Your task to perform on an android device: What is the recent news? Image 0: 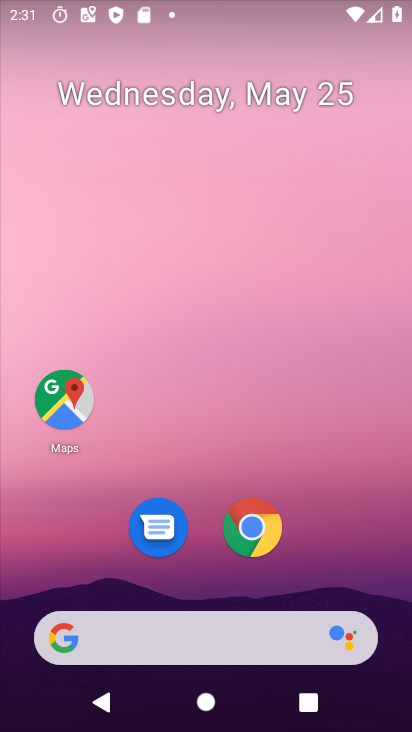
Step 0: drag from (182, 598) to (272, 10)
Your task to perform on an android device: What is the recent news? Image 1: 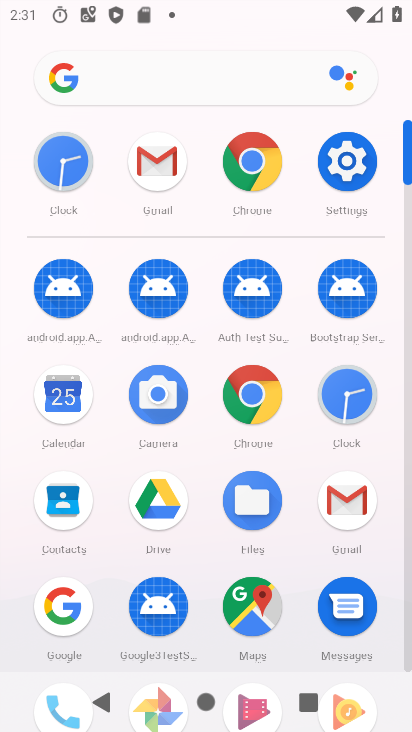
Step 1: click (142, 88)
Your task to perform on an android device: What is the recent news? Image 2: 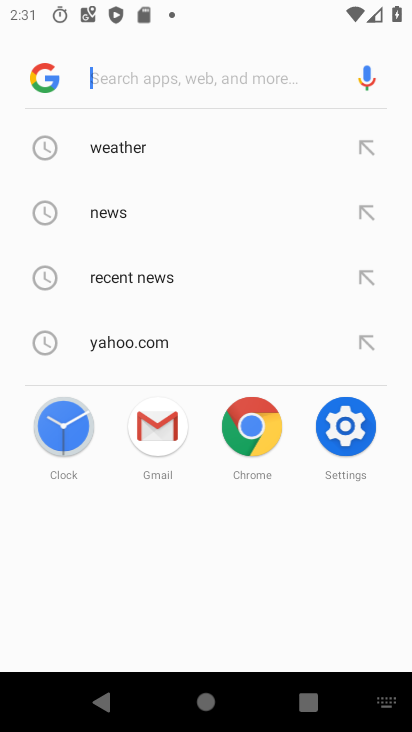
Step 2: click (122, 273)
Your task to perform on an android device: What is the recent news? Image 3: 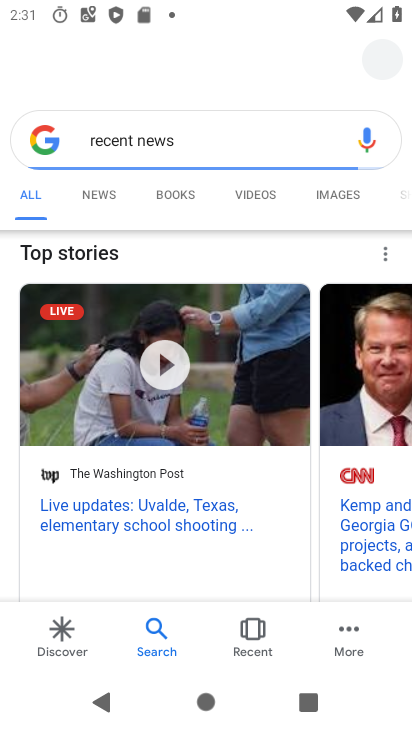
Step 3: task complete